Your task to perform on an android device: Open privacy settings Image 0: 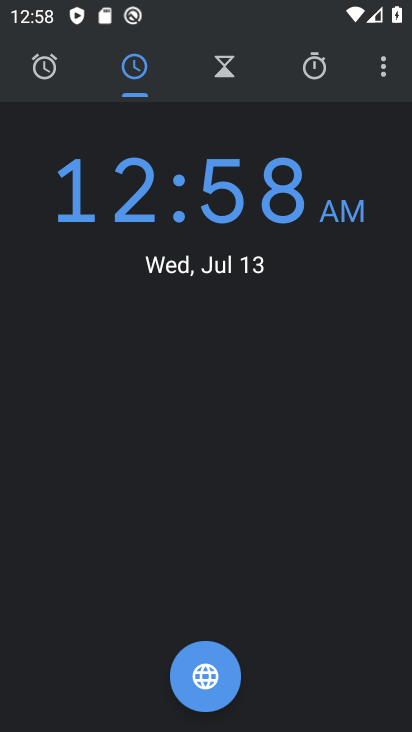
Step 0: press home button
Your task to perform on an android device: Open privacy settings Image 1: 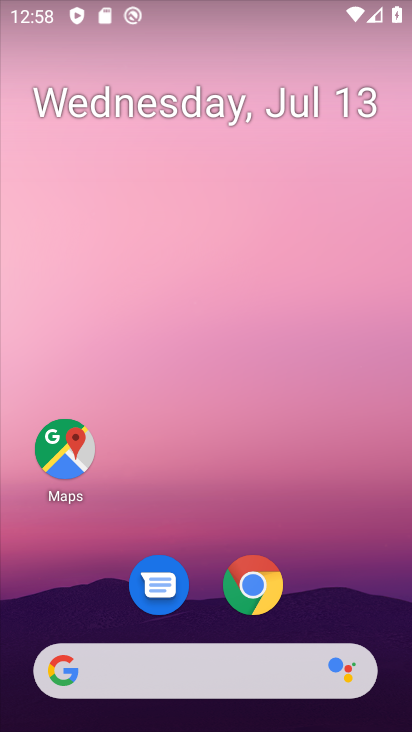
Step 1: drag from (335, 567) to (340, 15)
Your task to perform on an android device: Open privacy settings Image 2: 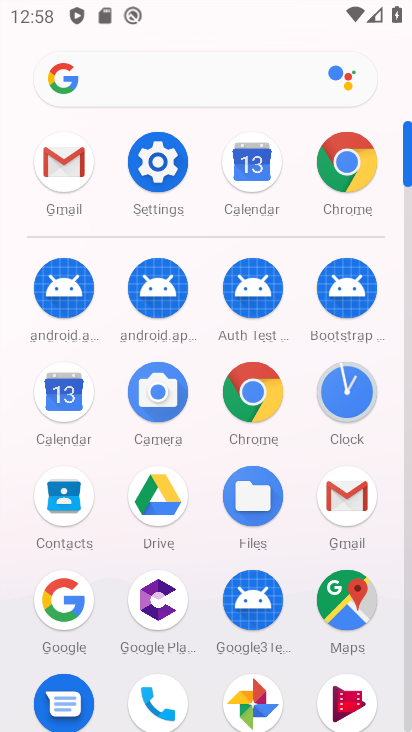
Step 2: click (166, 164)
Your task to perform on an android device: Open privacy settings Image 3: 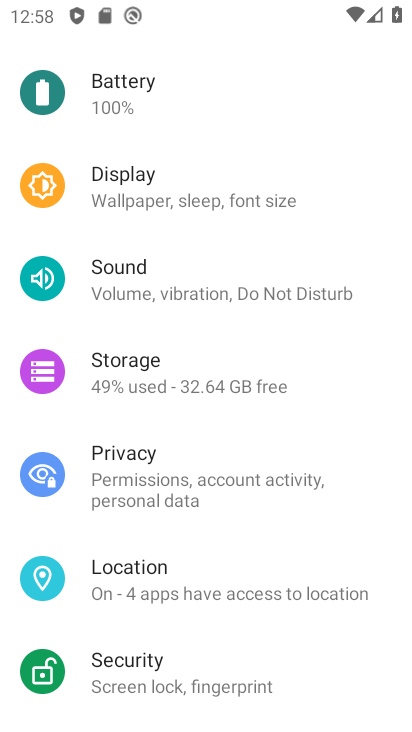
Step 3: click (168, 468)
Your task to perform on an android device: Open privacy settings Image 4: 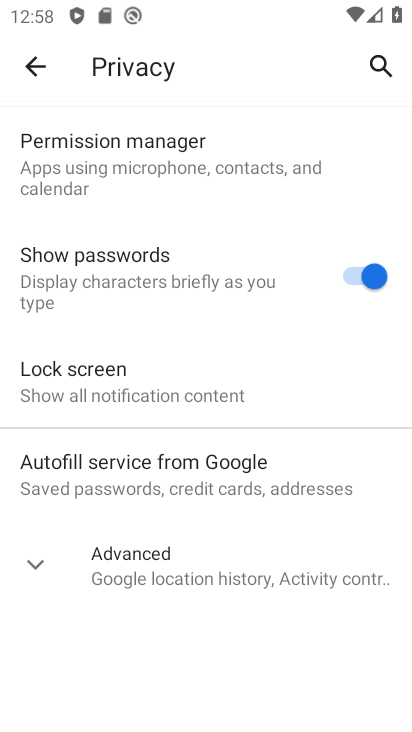
Step 4: task complete